Your task to perform on an android device: Is it going to rain today? Image 0: 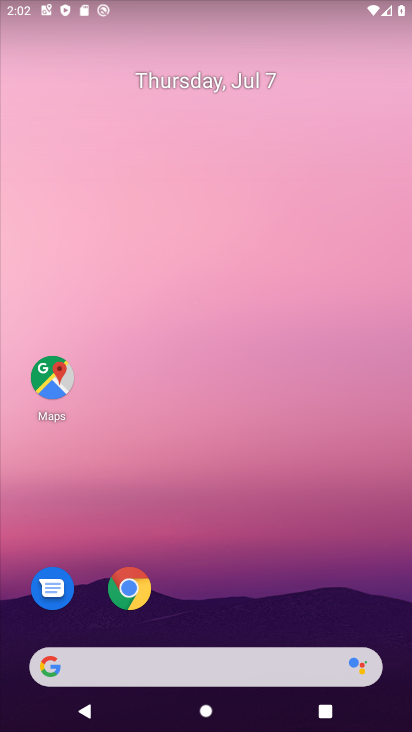
Step 0: click (178, 661)
Your task to perform on an android device: Is it going to rain today? Image 1: 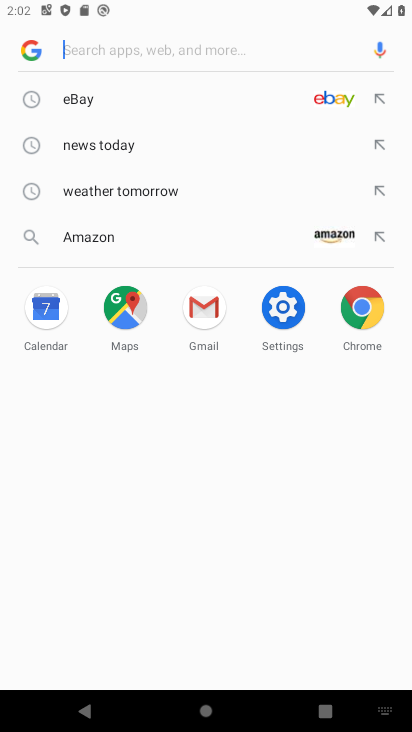
Step 1: click (120, 191)
Your task to perform on an android device: Is it going to rain today? Image 2: 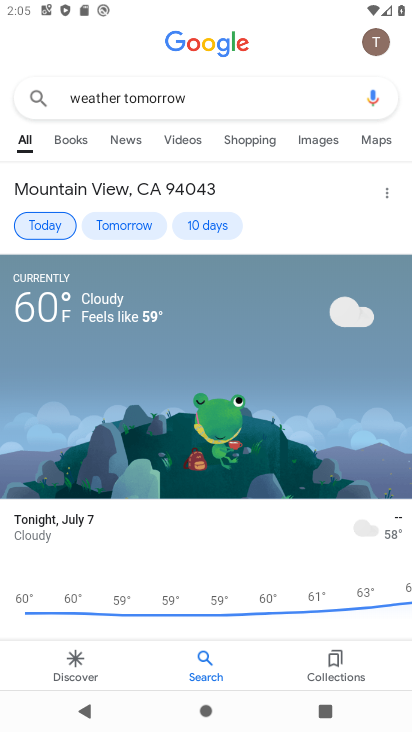
Step 2: click (36, 234)
Your task to perform on an android device: Is it going to rain today? Image 3: 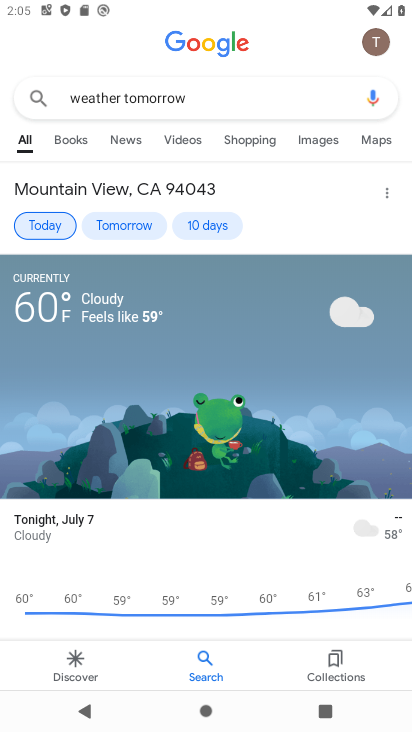
Step 3: task complete